Your task to perform on an android device: Go to network settings Image 0: 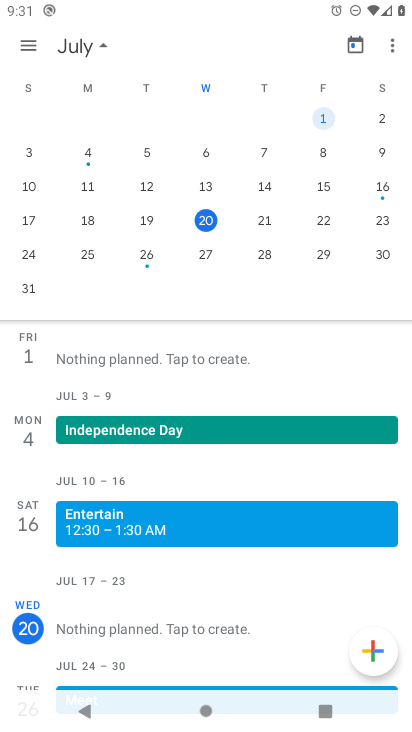
Step 0: press home button
Your task to perform on an android device: Go to network settings Image 1: 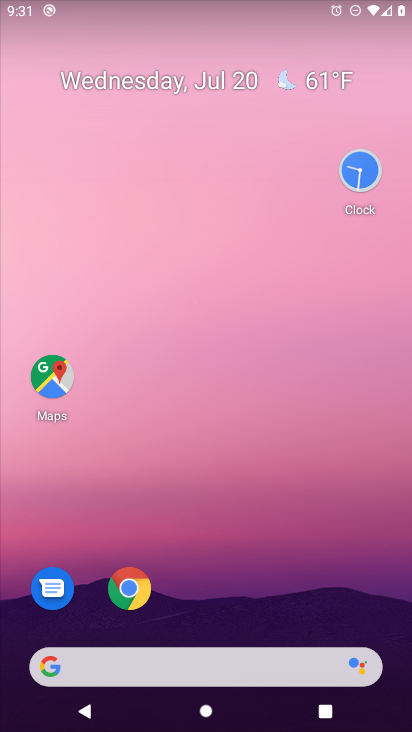
Step 1: drag from (114, 483) to (311, 101)
Your task to perform on an android device: Go to network settings Image 2: 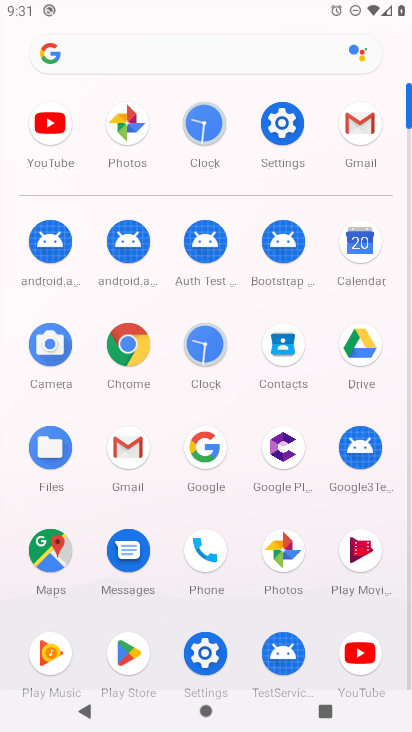
Step 2: click (215, 663)
Your task to perform on an android device: Go to network settings Image 3: 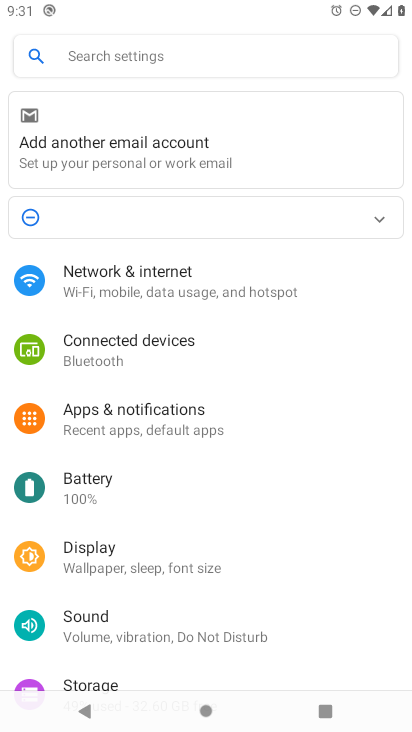
Step 3: click (147, 289)
Your task to perform on an android device: Go to network settings Image 4: 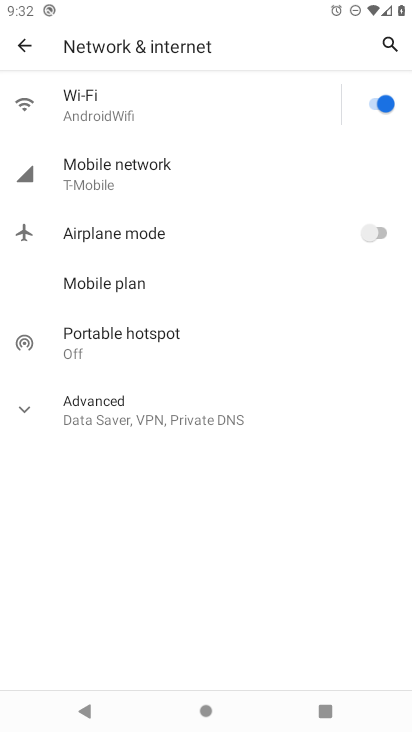
Step 4: task complete